Your task to perform on an android device: empty trash in the gmail app Image 0: 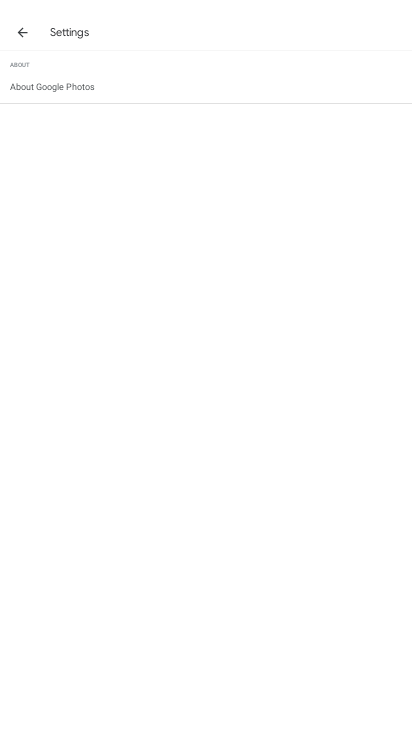
Step 0: press home button
Your task to perform on an android device: empty trash in the gmail app Image 1: 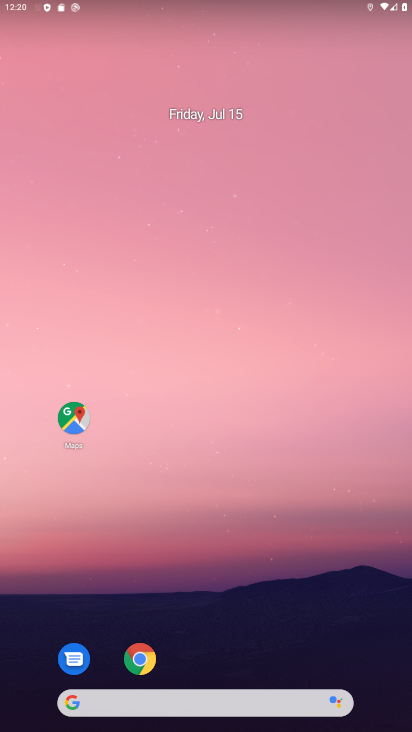
Step 1: drag from (207, 624) to (235, 132)
Your task to perform on an android device: empty trash in the gmail app Image 2: 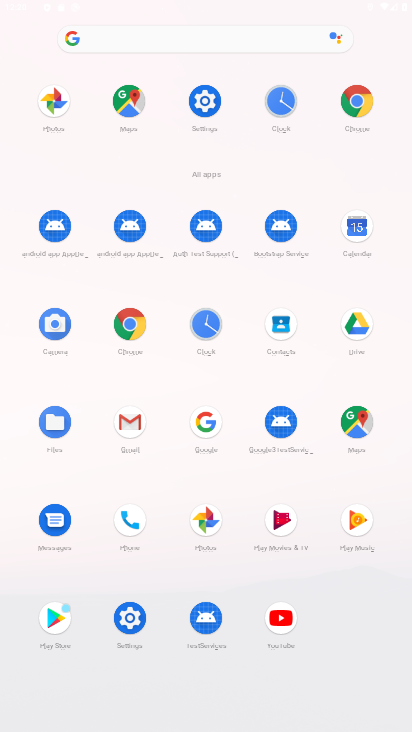
Step 2: click (129, 422)
Your task to perform on an android device: empty trash in the gmail app Image 3: 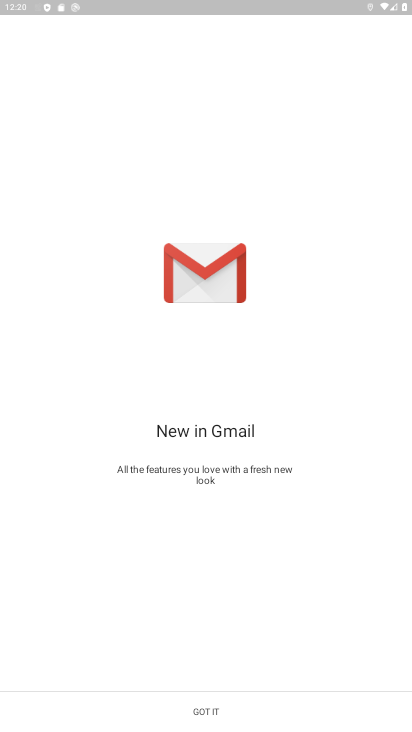
Step 3: click (213, 723)
Your task to perform on an android device: empty trash in the gmail app Image 4: 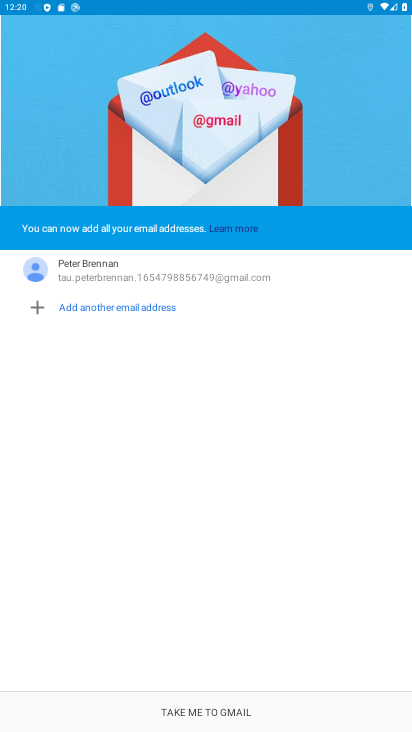
Step 4: click (213, 723)
Your task to perform on an android device: empty trash in the gmail app Image 5: 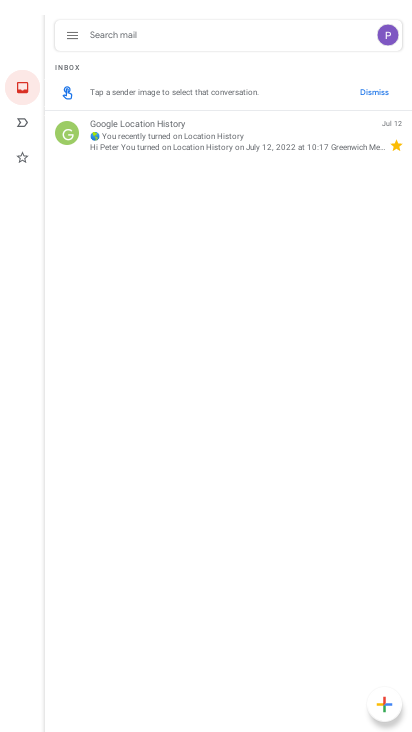
Step 5: click (80, 38)
Your task to perform on an android device: empty trash in the gmail app Image 6: 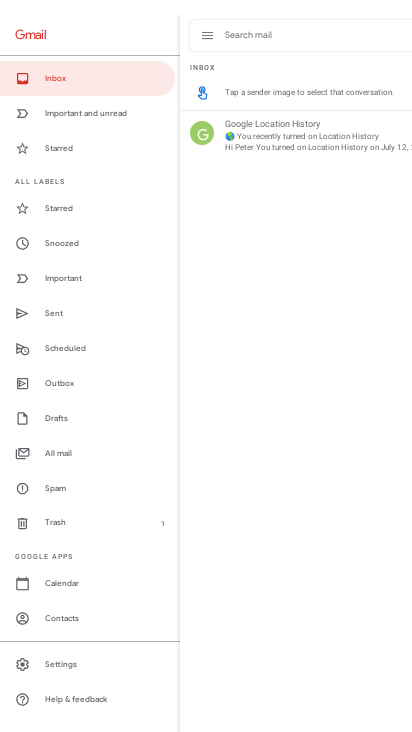
Step 6: click (61, 520)
Your task to perform on an android device: empty trash in the gmail app Image 7: 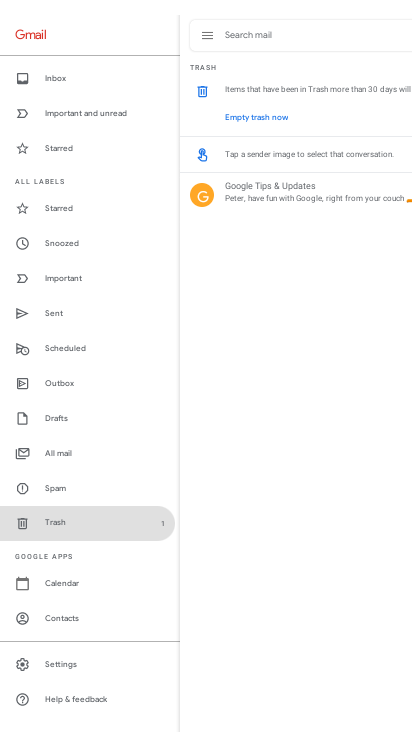
Step 7: click (264, 196)
Your task to perform on an android device: empty trash in the gmail app Image 8: 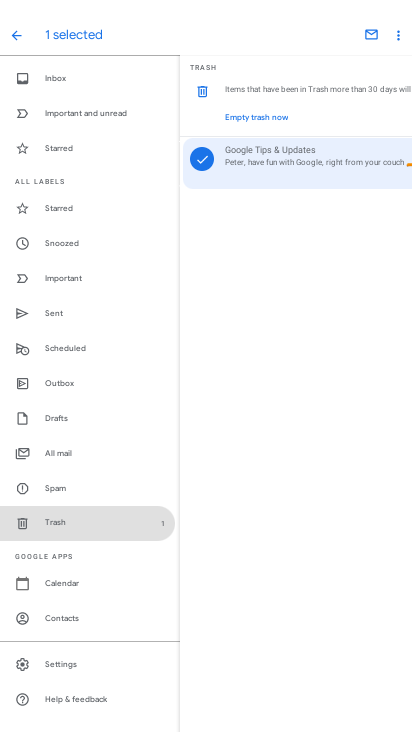
Step 8: click (201, 87)
Your task to perform on an android device: empty trash in the gmail app Image 9: 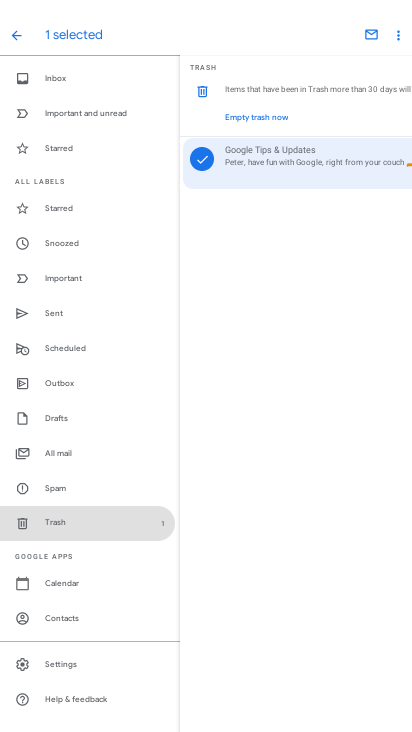
Step 9: click (208, 90)
Your task to perform on an android device: empty trash in the gmail app Image 10: 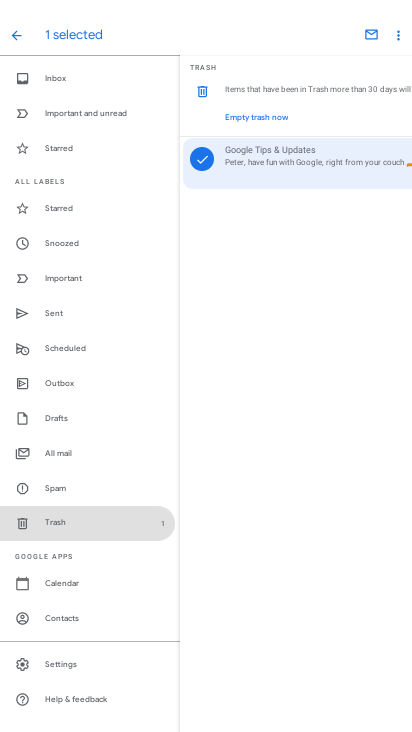
Step 10: click (240, 118)
Your task to perform on an android device: empty trash in the gmail app Image 11: 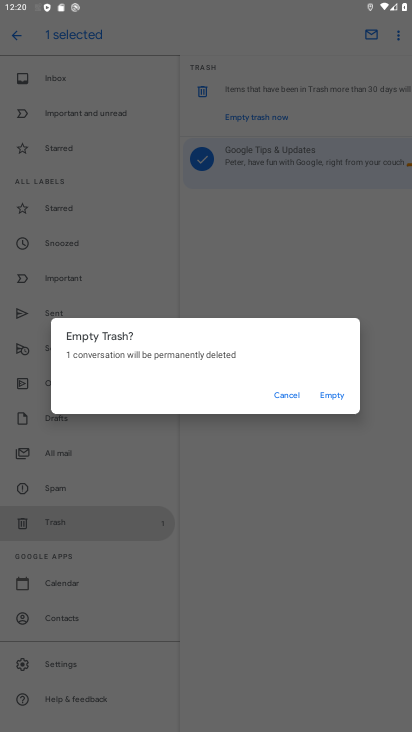
Step 11: click (327, 393)
Your task to perform on an android device: empty trash in the gmail app Image 12: 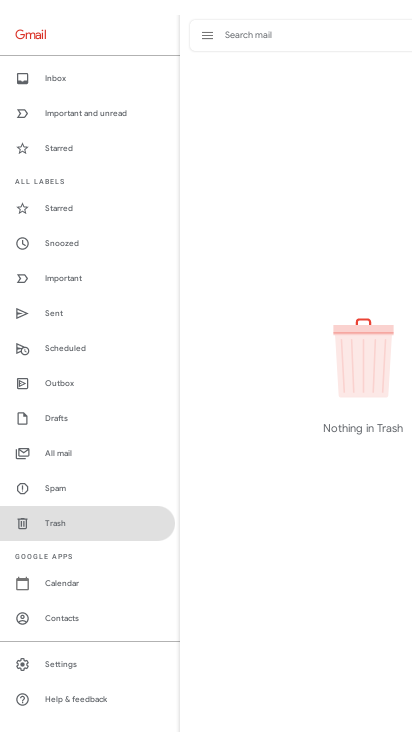
Step 12: task complete